Your task to perform on an android device: open app "Google News" (install if not already installed) Image 0: 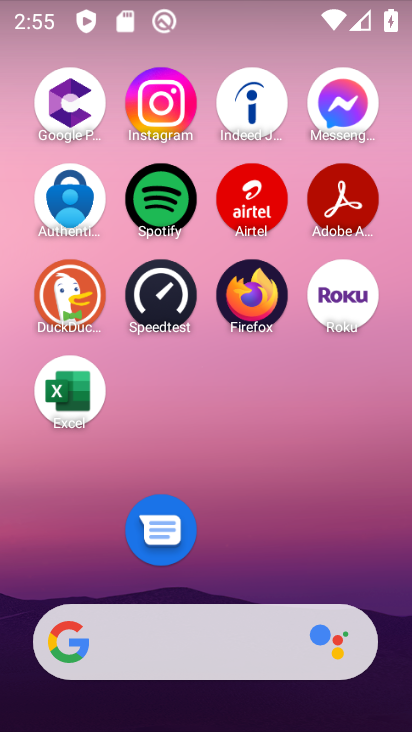
Step 0: drag from (239, 581) to (228, 5)
Your task to perform on an android device: open app "Google News" (install if not already installed) Image 1: 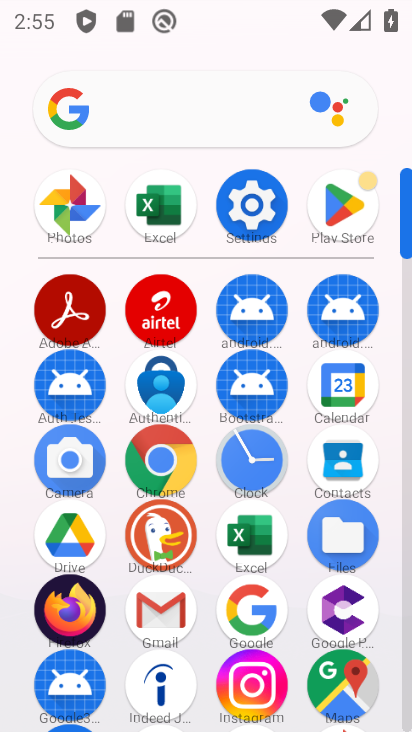
Step 1: click (343, 211)
Your task to perform on an android device: open app "Google News" (install if not already installed) Image 2: 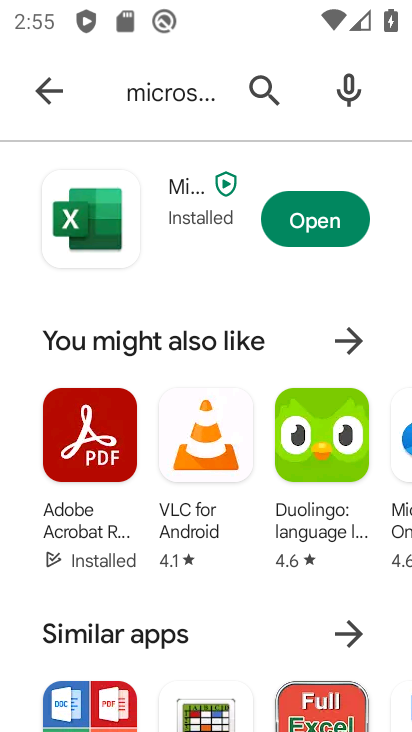
Step 2: click (144, 97)
Your task to perform on an android device: open app "Google News" (install if not already installed) Image 3: 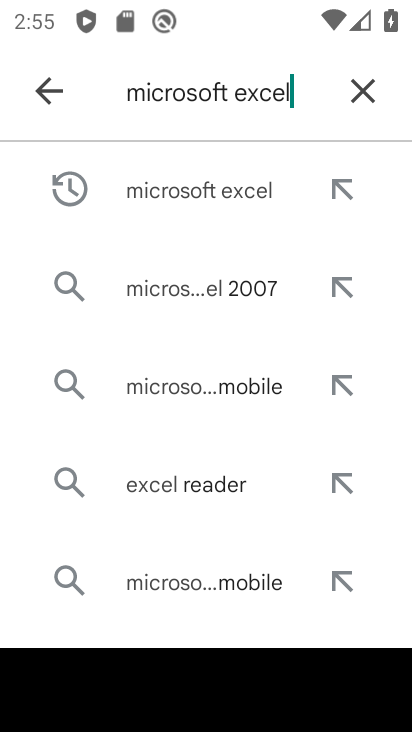
Step 3: click (360, 81)
Your task to perform on an android device: open app "Google News" (install if not already installed) Image 4: 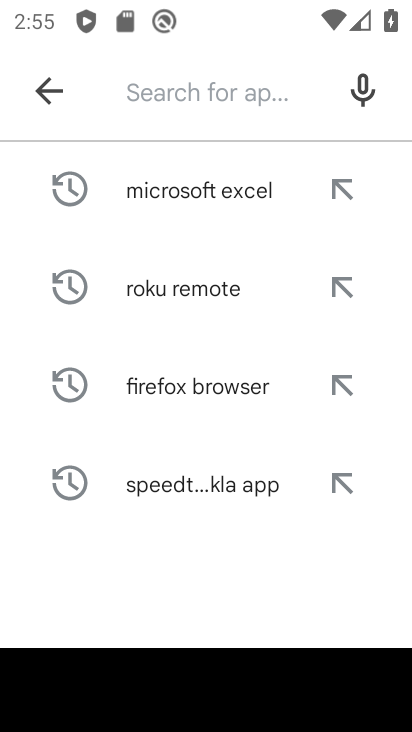
Step 4: type "google news"
Your task to perform on an android device: open app "Google News" (install if not already installed) Image 5: 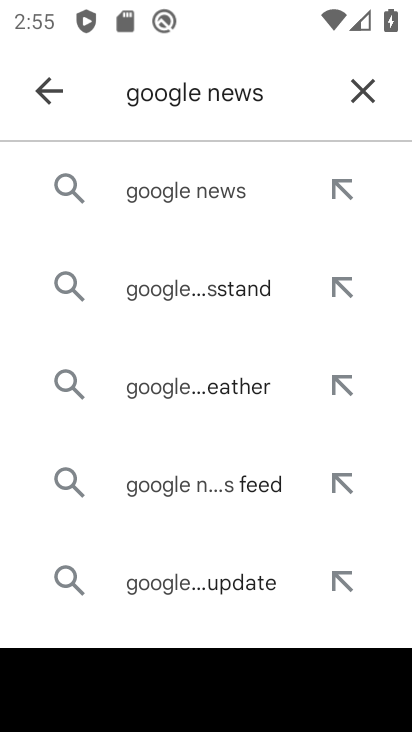
Step 5: click (189, 192)
Your task to perform on an android device: open app "Google News" (install if not already installed) Image 6: 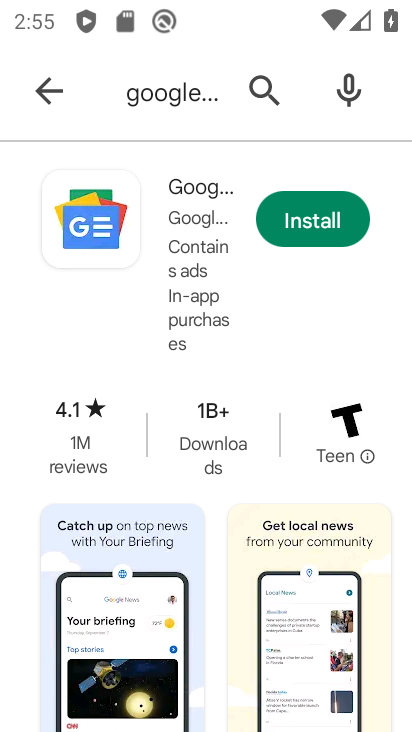
Step 6: click (316, 198)
Your task to perform on an android device: open app "Google News" (install if not already installed) Image 7: 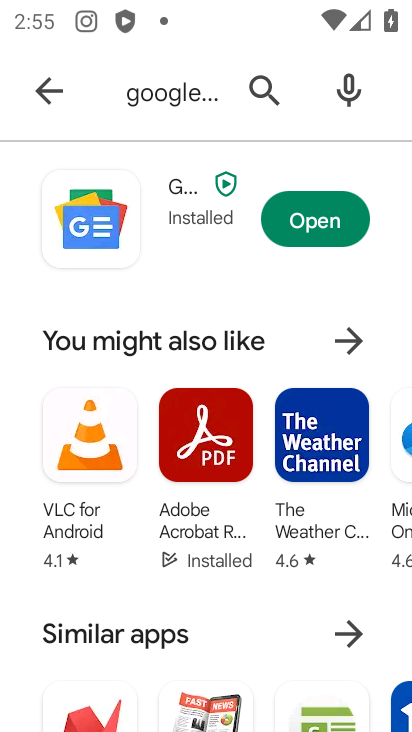
Step 7: click (330, 221)
Your task to perform on an android device: open app "Google News" (install if not already installed) Image 8: 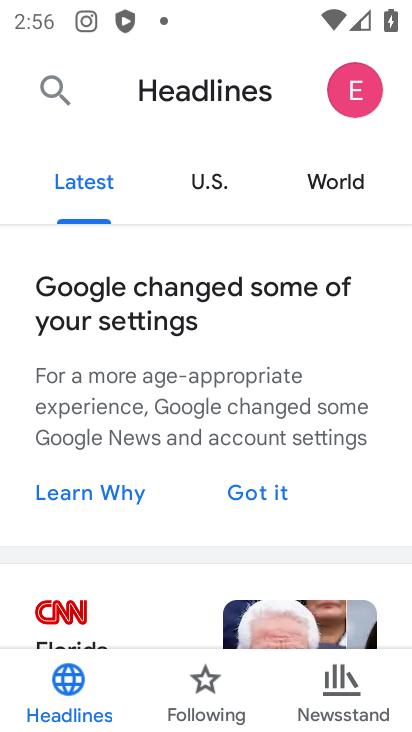
Step 8: task complete